Your task to perform on an android device: toggle airplane mode Image 0: 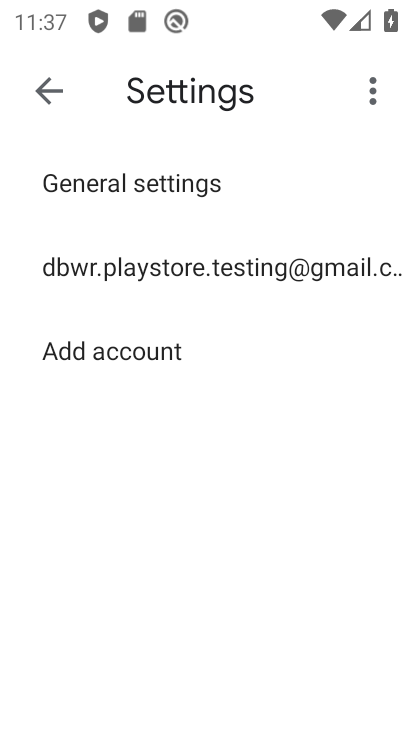
Step 0: press home button
Your task to perform on an android device: toggle airplane mode Image 1: 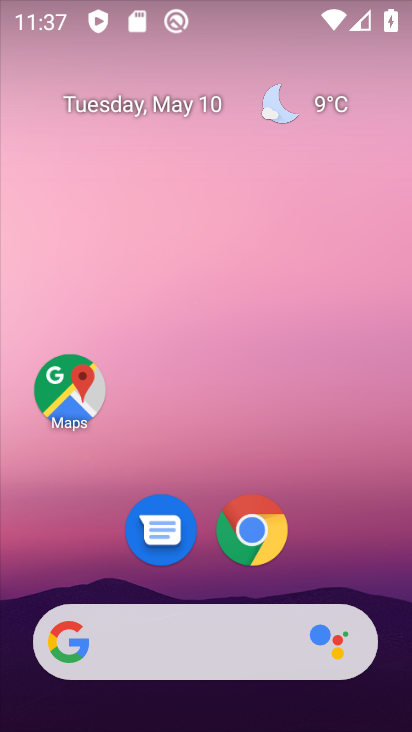
Step 1: drag from (284, 16) to (355, 588)
Your task to perform on an android device: toggle airplane mode Image 2: 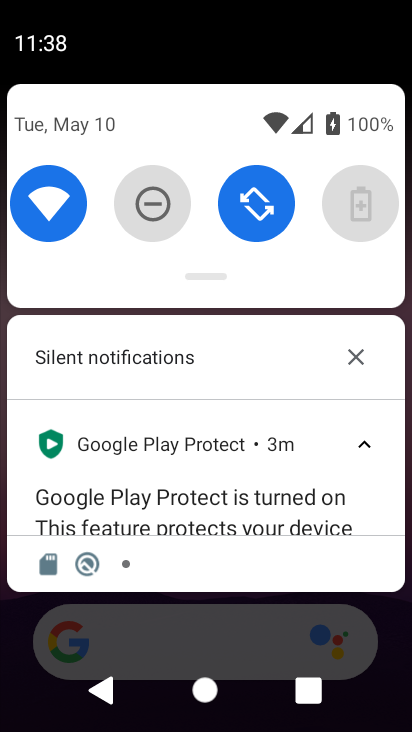
Step 2: drag from (192, 272) to (274, 709)
Your task to perform on an android device: toggle airplane mode Image 3: 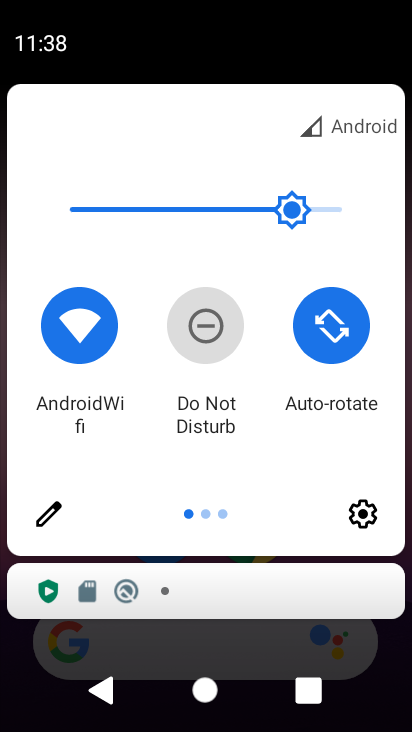
Step 3: drag from (390, 337) to (1, 397)
Your task to perform on an android device: toggle airplane mode Image 4: 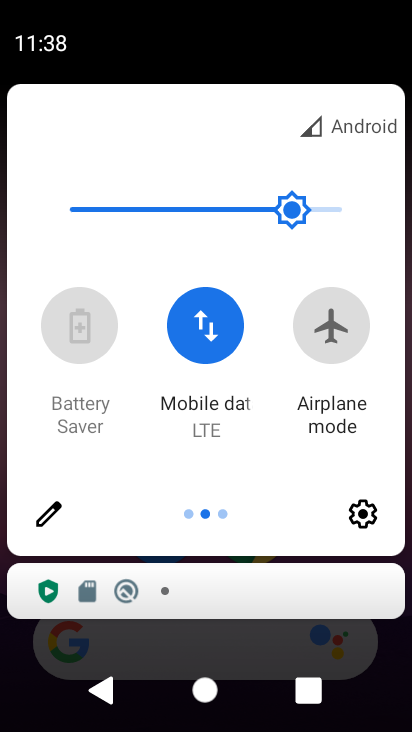
Step 4: click (337, 314)
Your task to perform on an android device: toggle airplane mode Image 5: 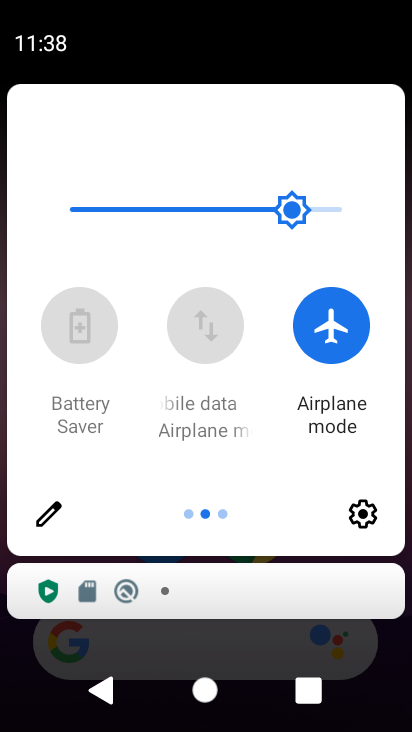
Step 5: task complete